Your task to perform on an android device: open a bookmark in the chrome app Image 0: 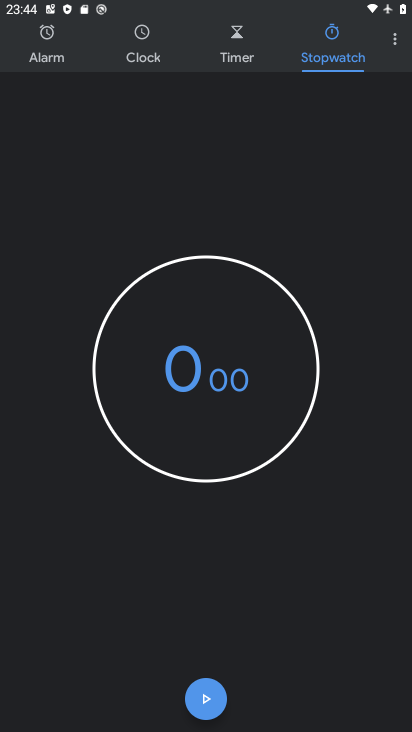
Step 0: press home button
Your task to perform on an android device: open a bookmark in the chrome app Image 1: 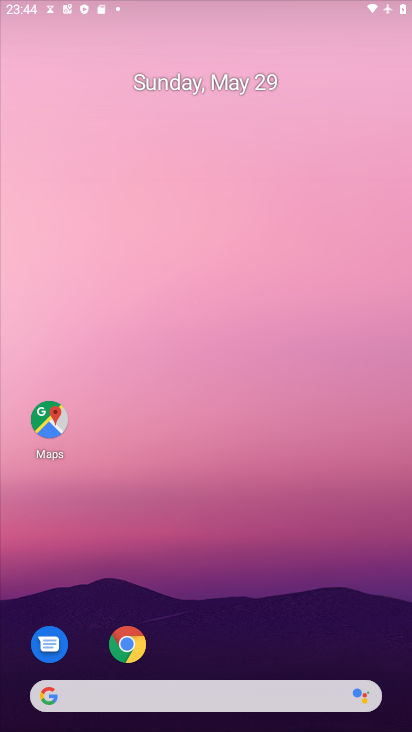
Step 1: drag from (248, 609) to (185, 285)
Your task to perform on an android device: open a bookmark in the chrome app Image 2: 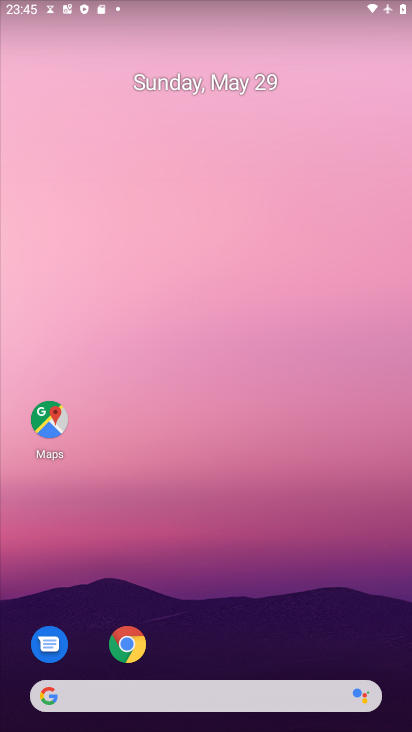
Step 2: click (127, 648)
Your task to perform on an android device: open a bookmark in the chrome app Image 3: 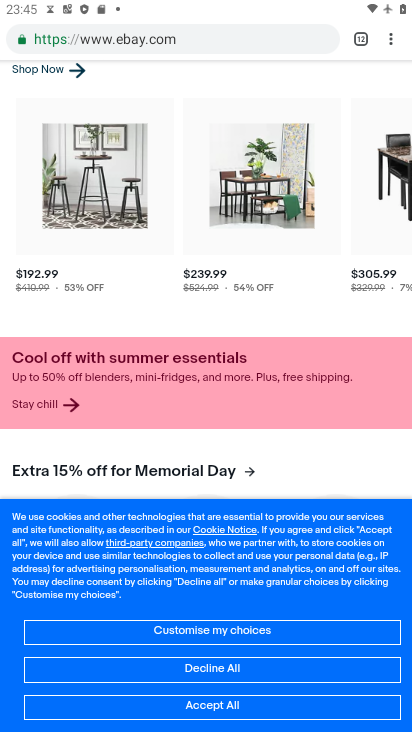
Step 3: click (397, 37)
Your task to perform on an android device: open a bookmark in the chrome app Image 4: 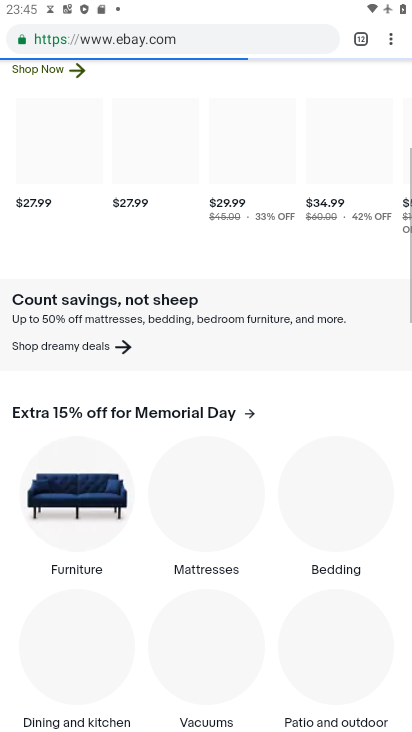
Step 4: click (396, 37)
Your task to perform on an android device: open a bookmark in the chrome app Image 5: 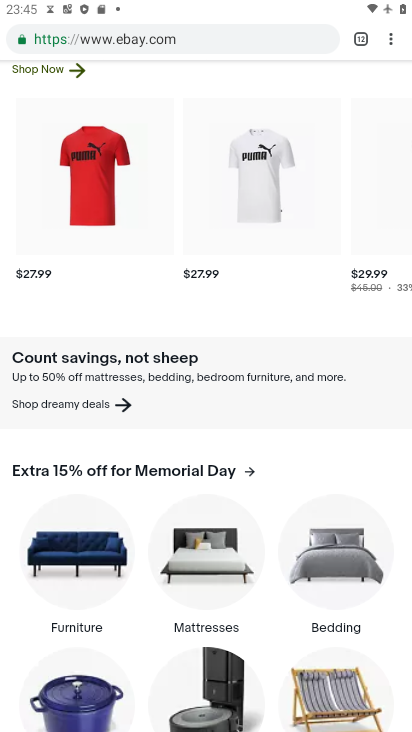
Step 5: click (389, 36)
Your task to perform on an android device: open a bookmark in the chrome app Image 6: 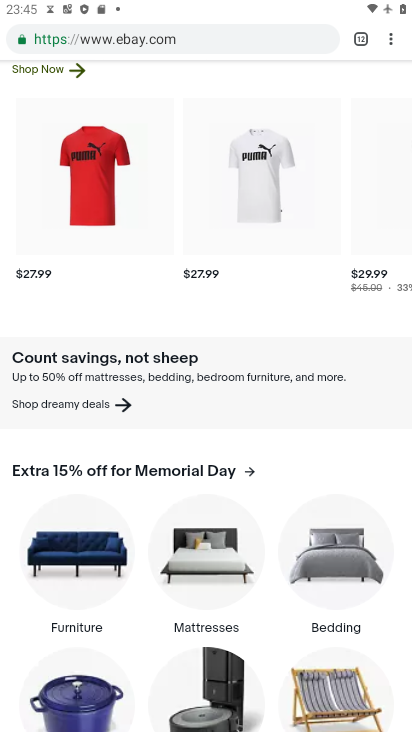
Step 6: click (389, 36)
Your task to perform on an android device: open a bookmark in the chrome app Image 7: 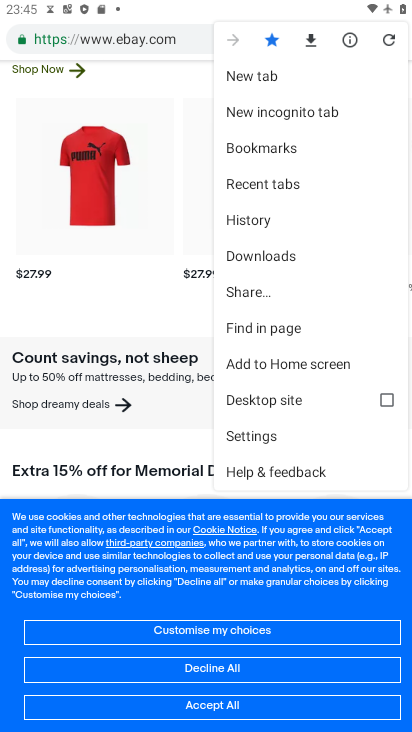
Step 7: click (275, 146)
Your task to perform on an android device: open a bookmark in the chrome app Image 8: 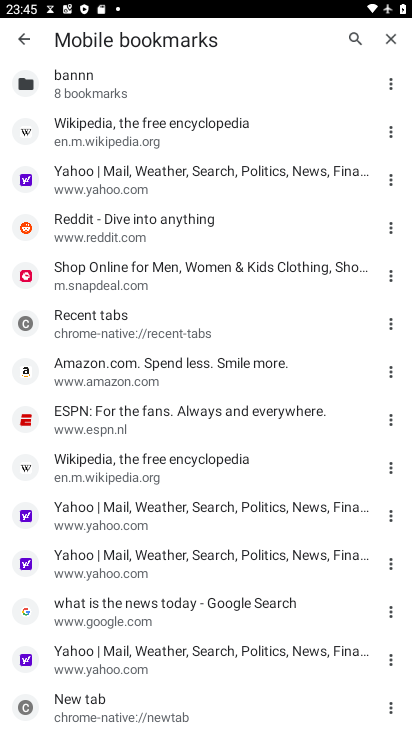
Step 8: task complete